Your task to perform on an android device: turn off location history Image 0: 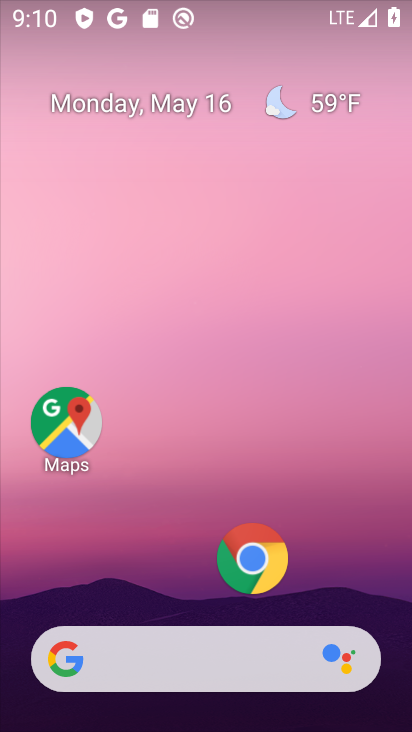
Step 0: drag from (172, 540) to (263, 0)
Your task to perform on an android device: turn off location history Image 1: 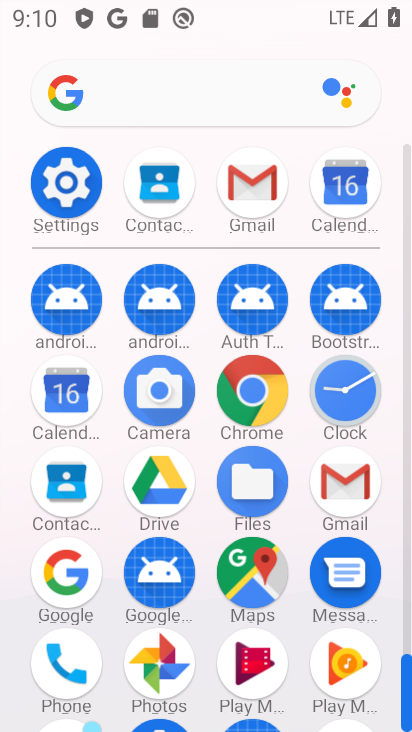
Step 1: click (88, 189)
Your task to perform on an android device: turn off location history Image 2: 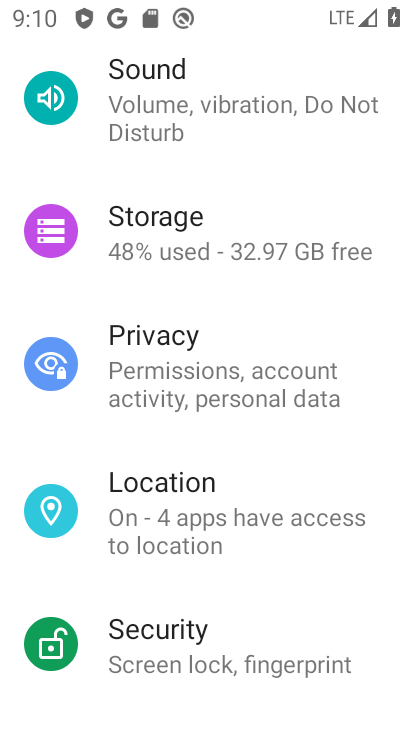
Step 2: click (193, 526)
Your task to perform on an android device: turn off location history Image 3: 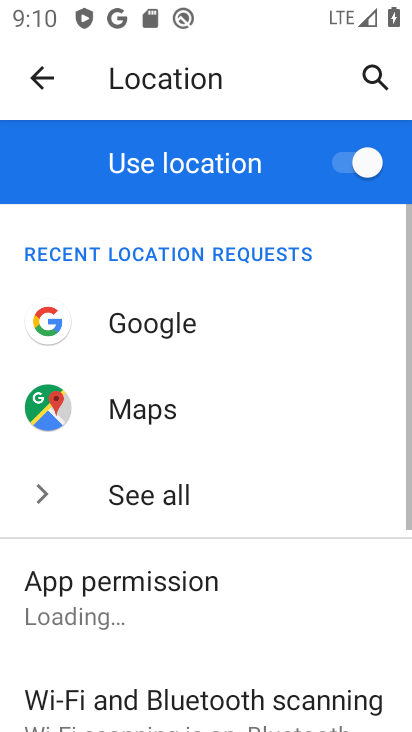
Step 3: drag from (174, 617) to (268, 38)
Your task to perform on an android device: turn off location history Image 4: 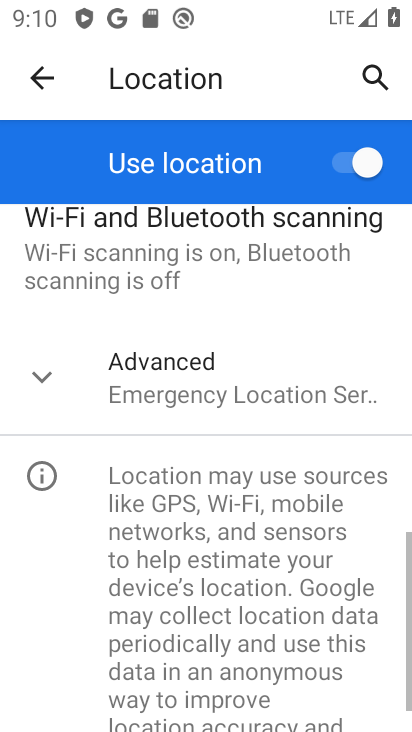
Step 4: click (168, 382)
Your task to perform on an android device: turn off location history Image 5: 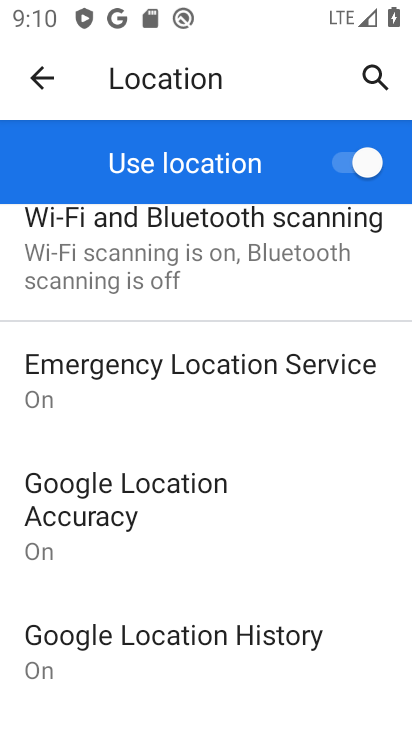
Step 5: click (171, 655)
Your task to perform on an android device: turn off location history Image 6: 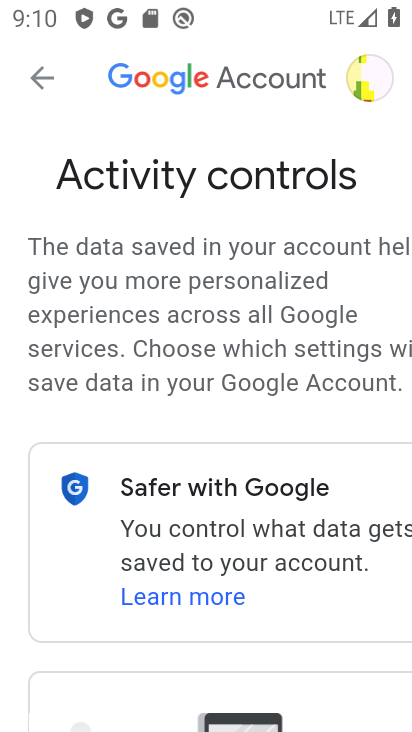
Step 6: task complete